Your task to perform on an android device: Show the shopping cart on ebay.com. Add "razer thresher" to the cart on ebay.com Image 0: 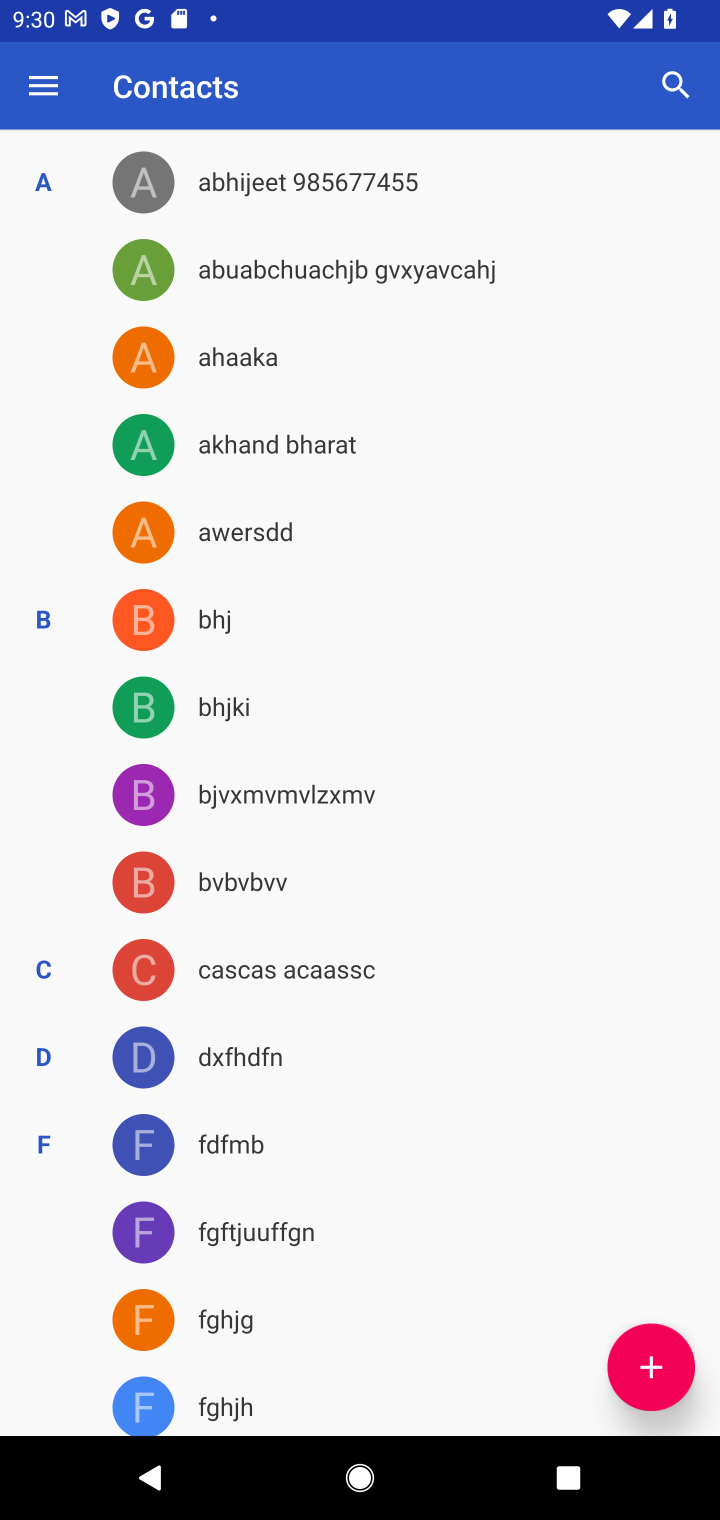
Step 0: press home button
Your task to perform on an android device: Show the shopping cart on ebay.com. Add "razer thresher" to the cart on ebay.com Image 1: 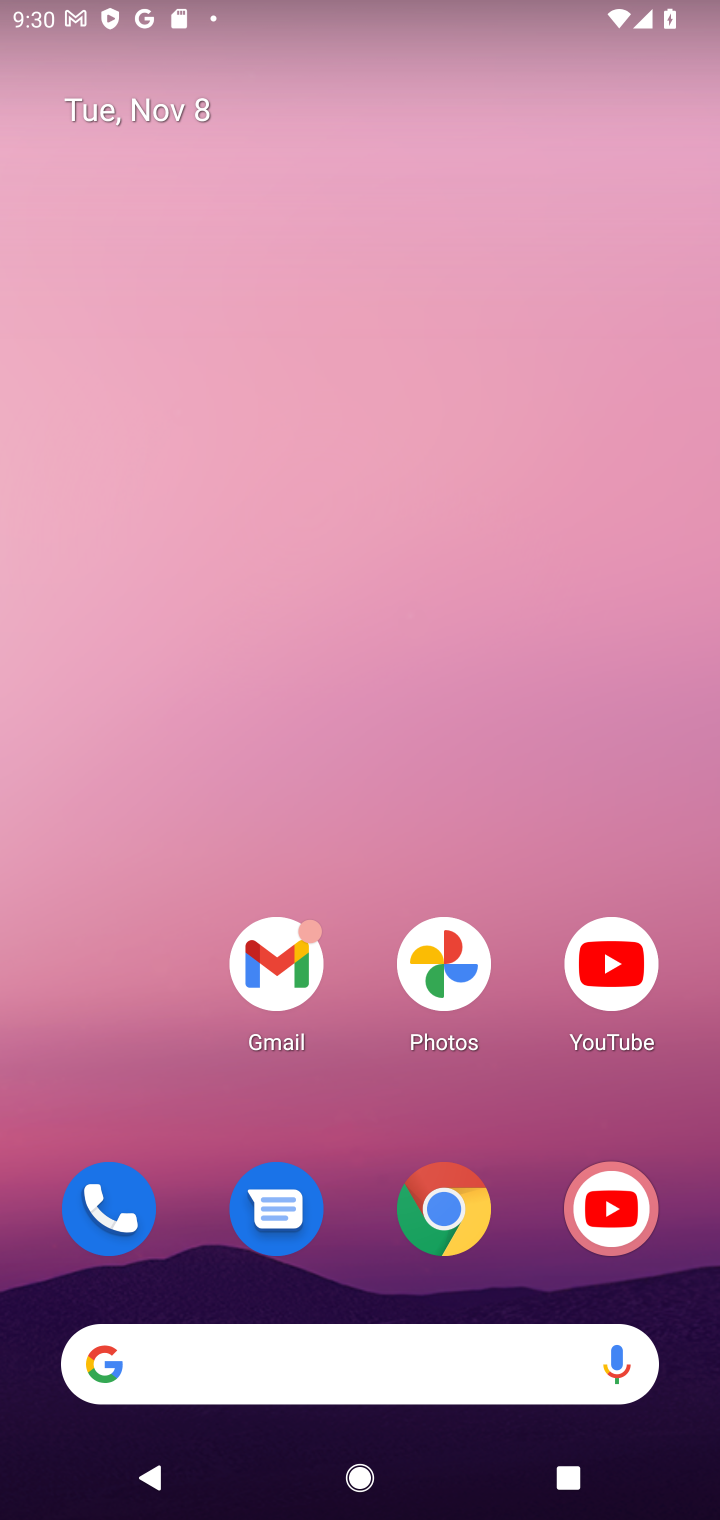
Step 1: click (446, 1199)
Your task to perform on an android device: Show the shopping cart on ebay.com. Add "razer thresher" to the cart on ebay.com Image 2: 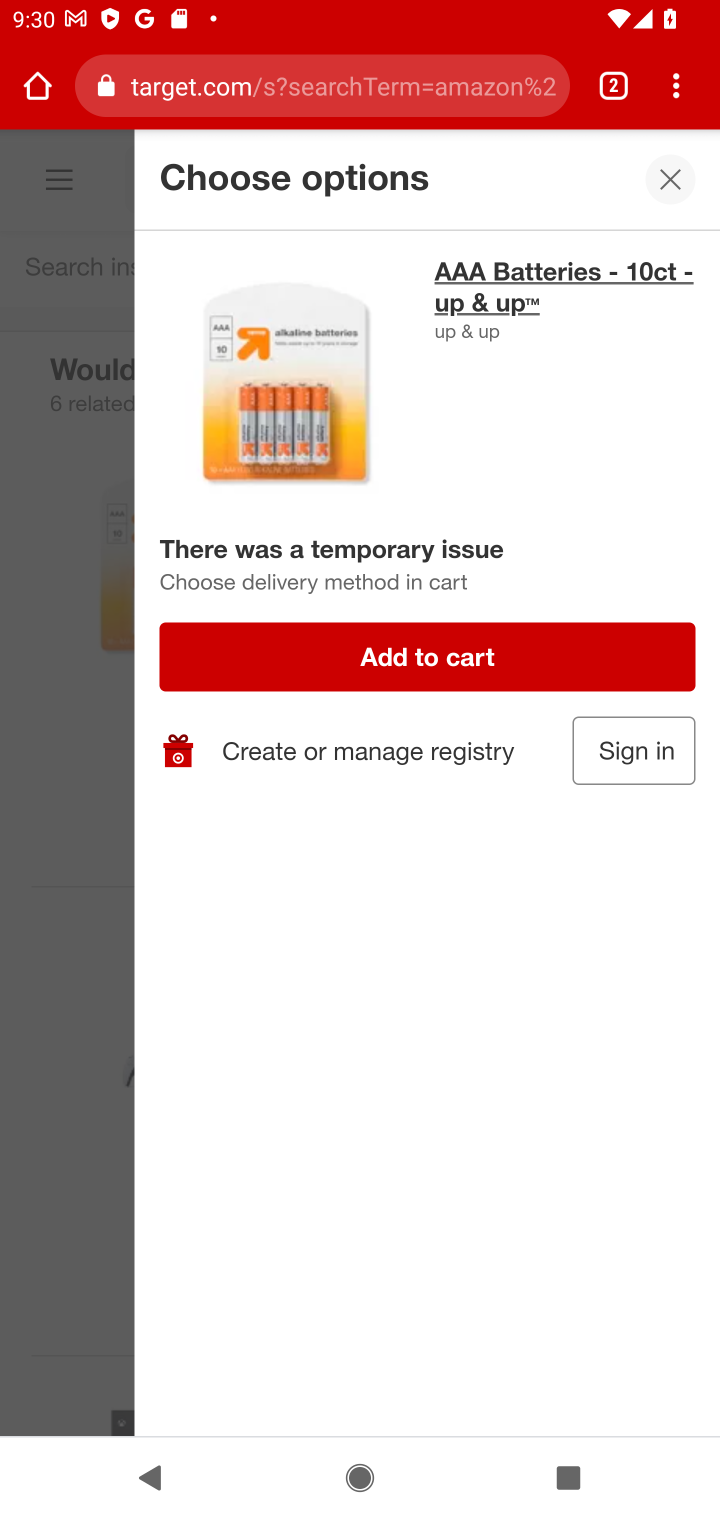
Step 2: click (614, 82)
Your task to perform on an android device: Show the shopping cart on ebay.com. Add "razer thresher" to the cart on ebay.com Image 3: 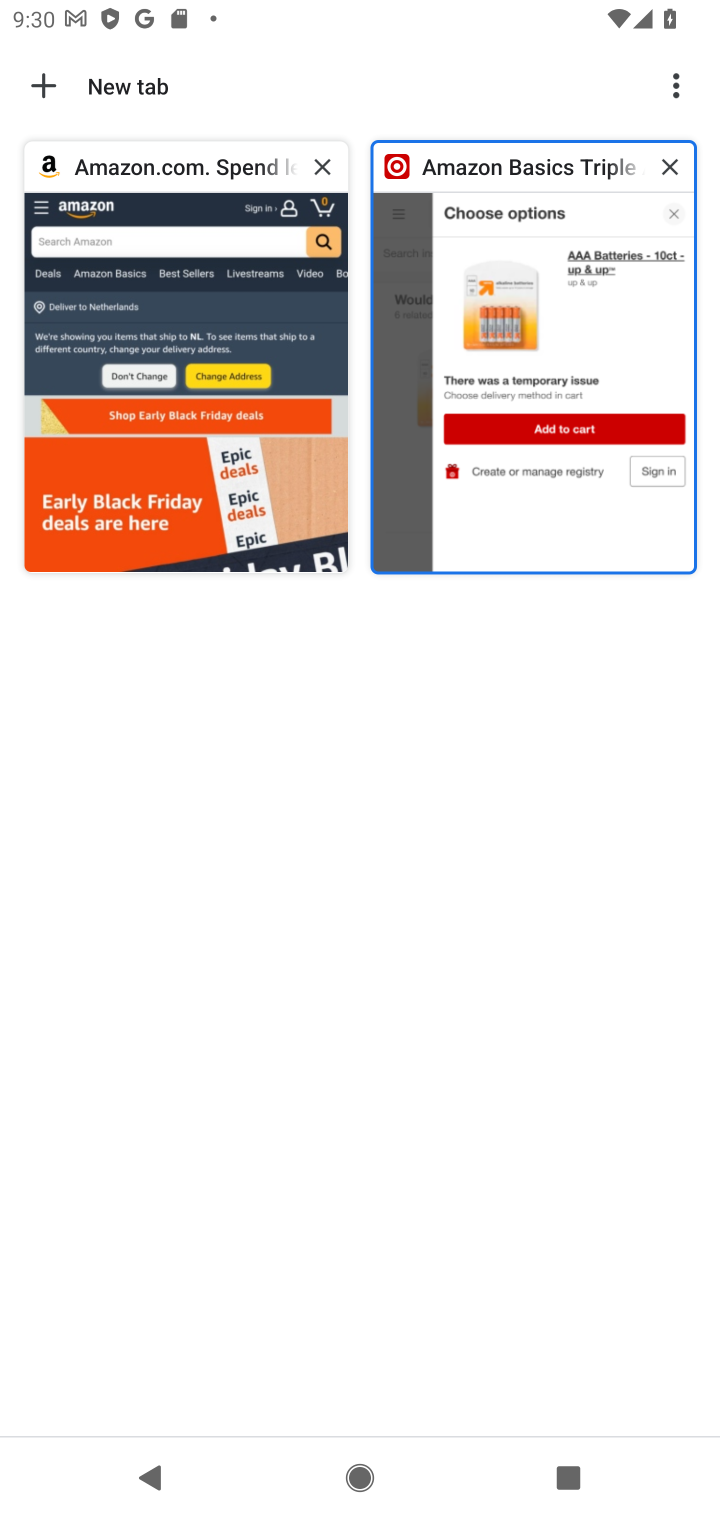
Step 3: click (45, 75)
Your task to perform on an android device: Show the shopping cart on ebay.com. Add "razer thresher" to the cart on ebay.com Image 4: 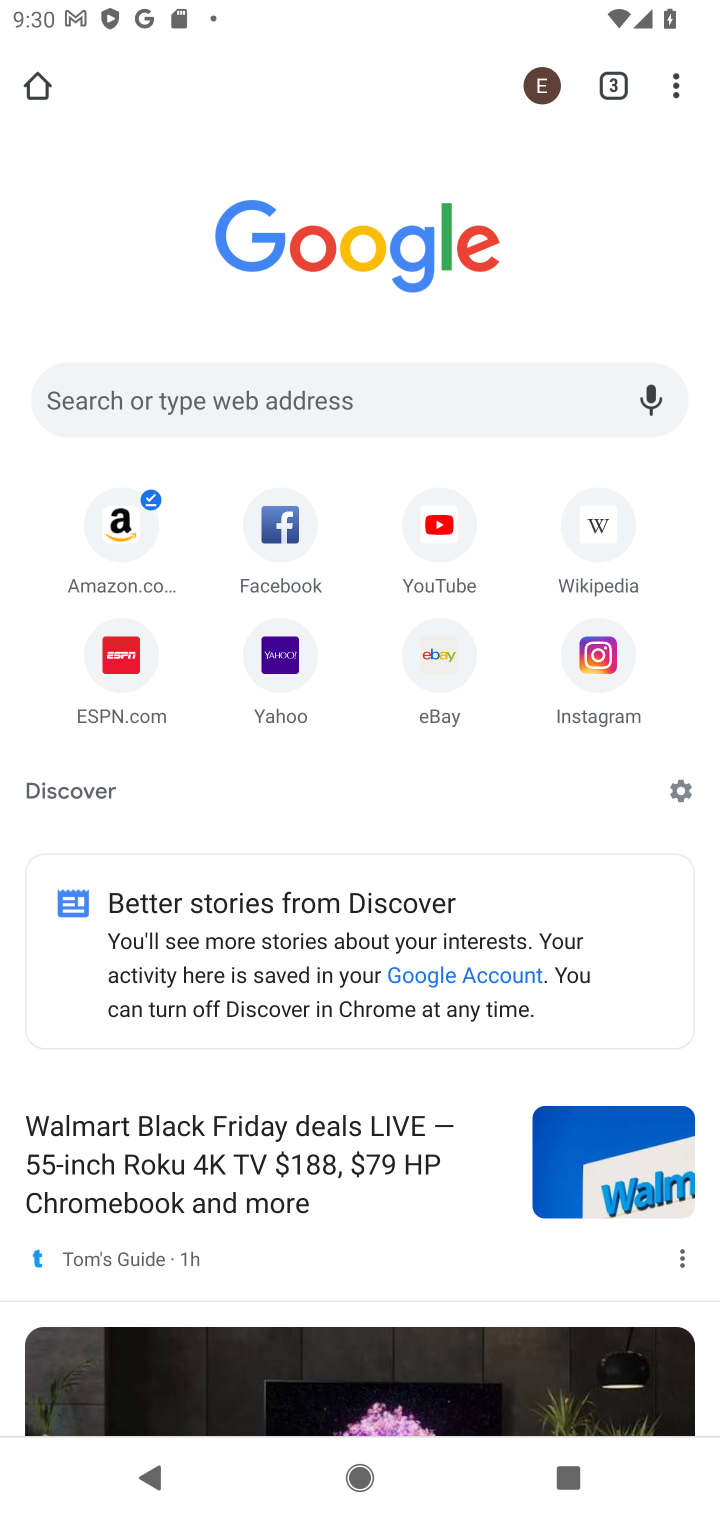
Step 4: click (435, 662)
Your task to perform on an android device: Show the shopping cart on ebay.com. Add "razer thresher" to the cart on ebay.com Image 5: 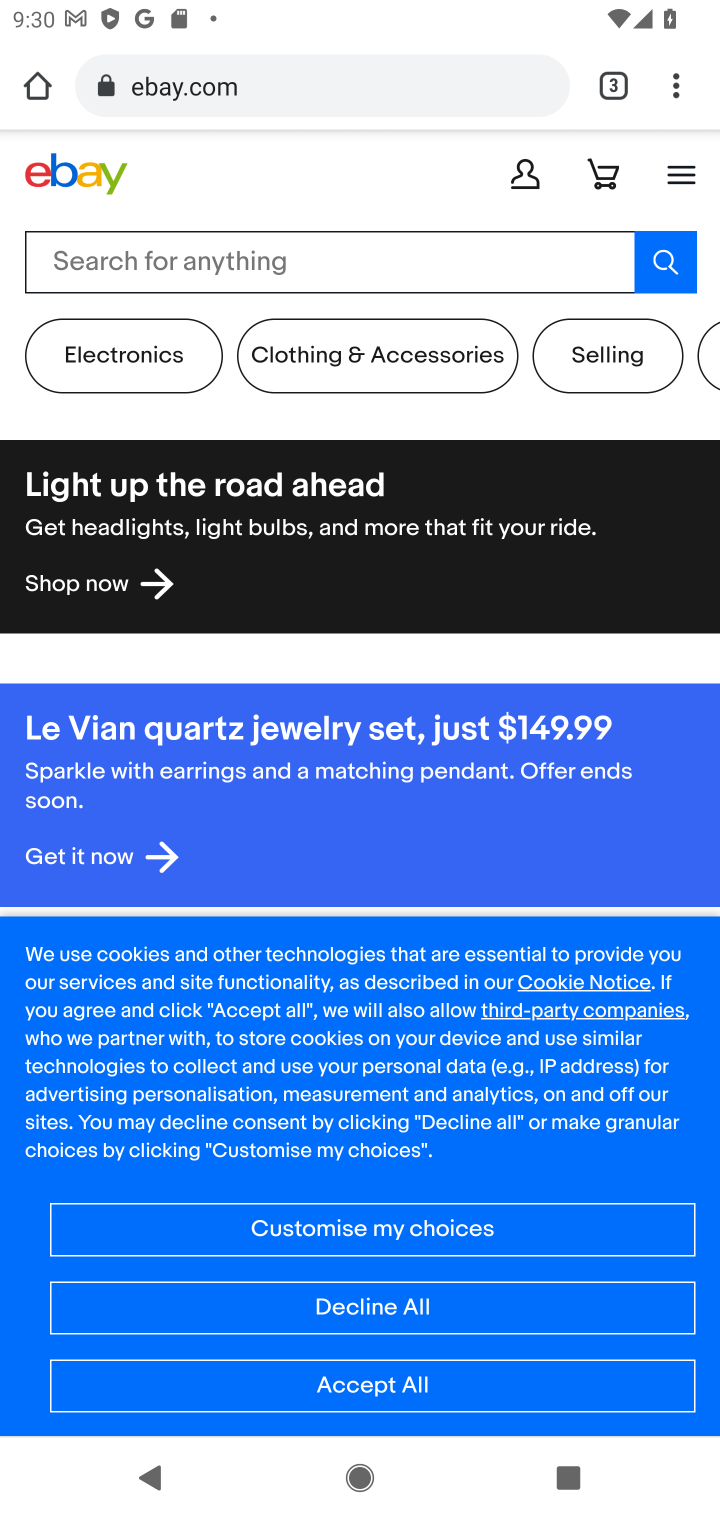
Step 5: click (264, 240)
Your task to perform on an android device: Show the shopping cart on ebay.com. Add "razer thresher" to the cart on ebay.com Image 6: 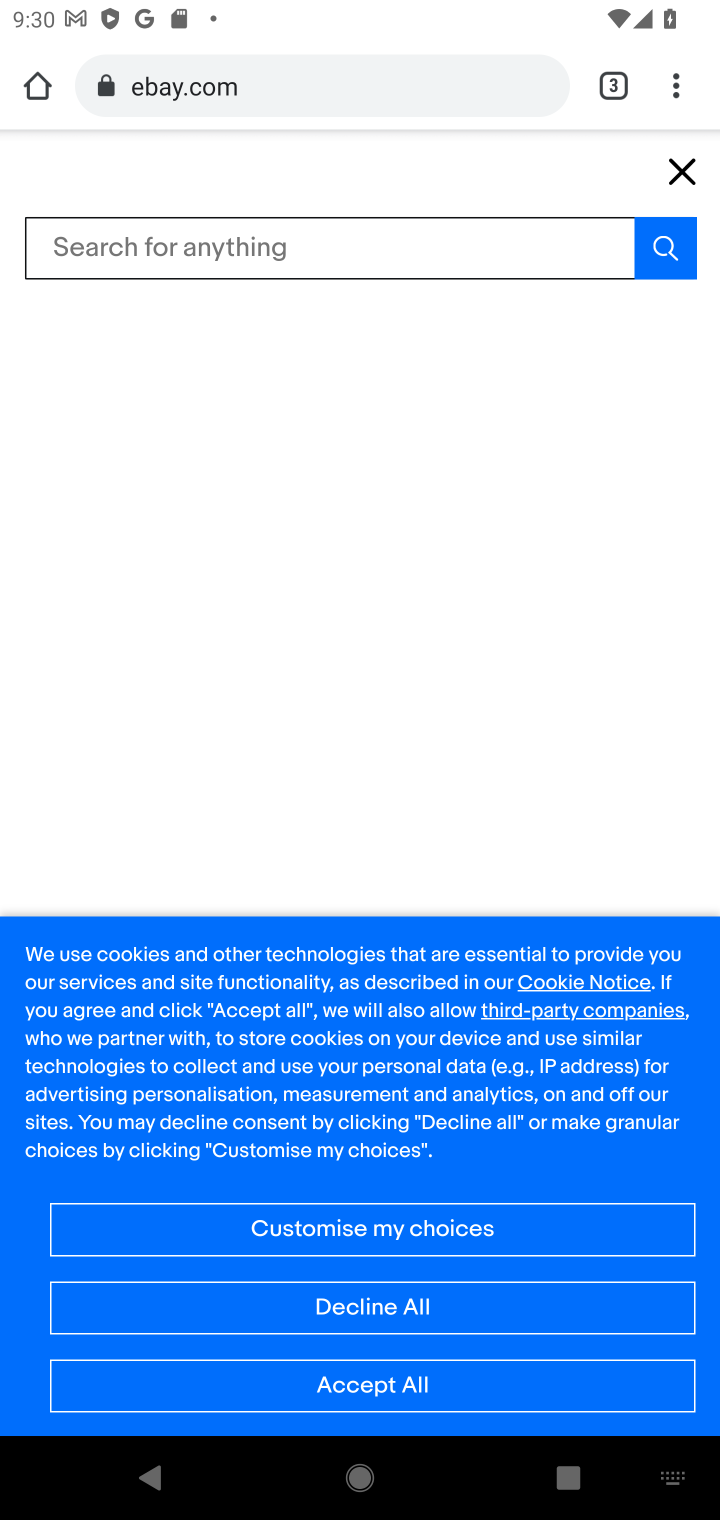
Step 6: type "razer thresher"
Your task to perform on an android device: Show the shopping cart on ebay.com. Add "razer thresher" to the cart on ebay.com Image 7: 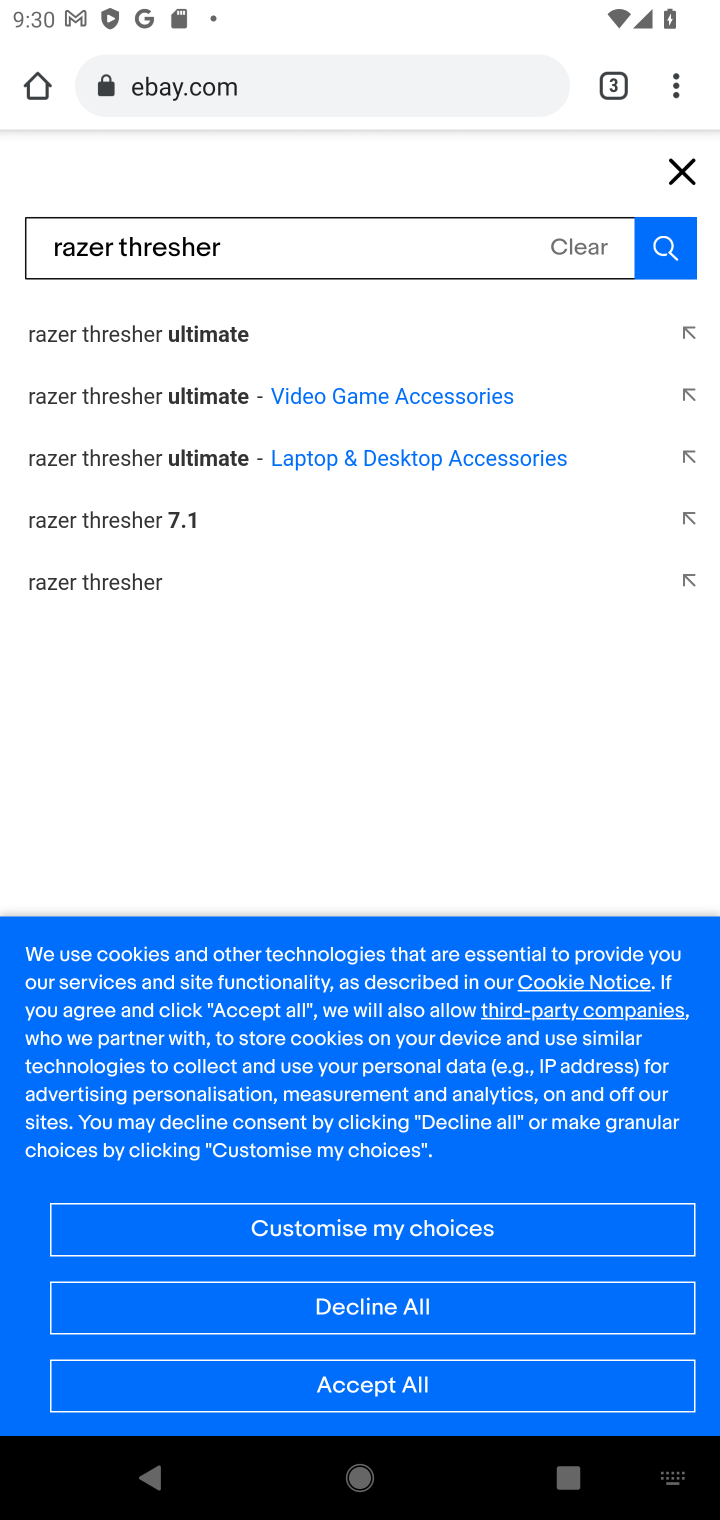
Step 7: click (402, 1308)
Your task to perform on an android device: Show the shopping cart on ebay.com. Add "razer thresher" to the cart on ebay.com Image 8: 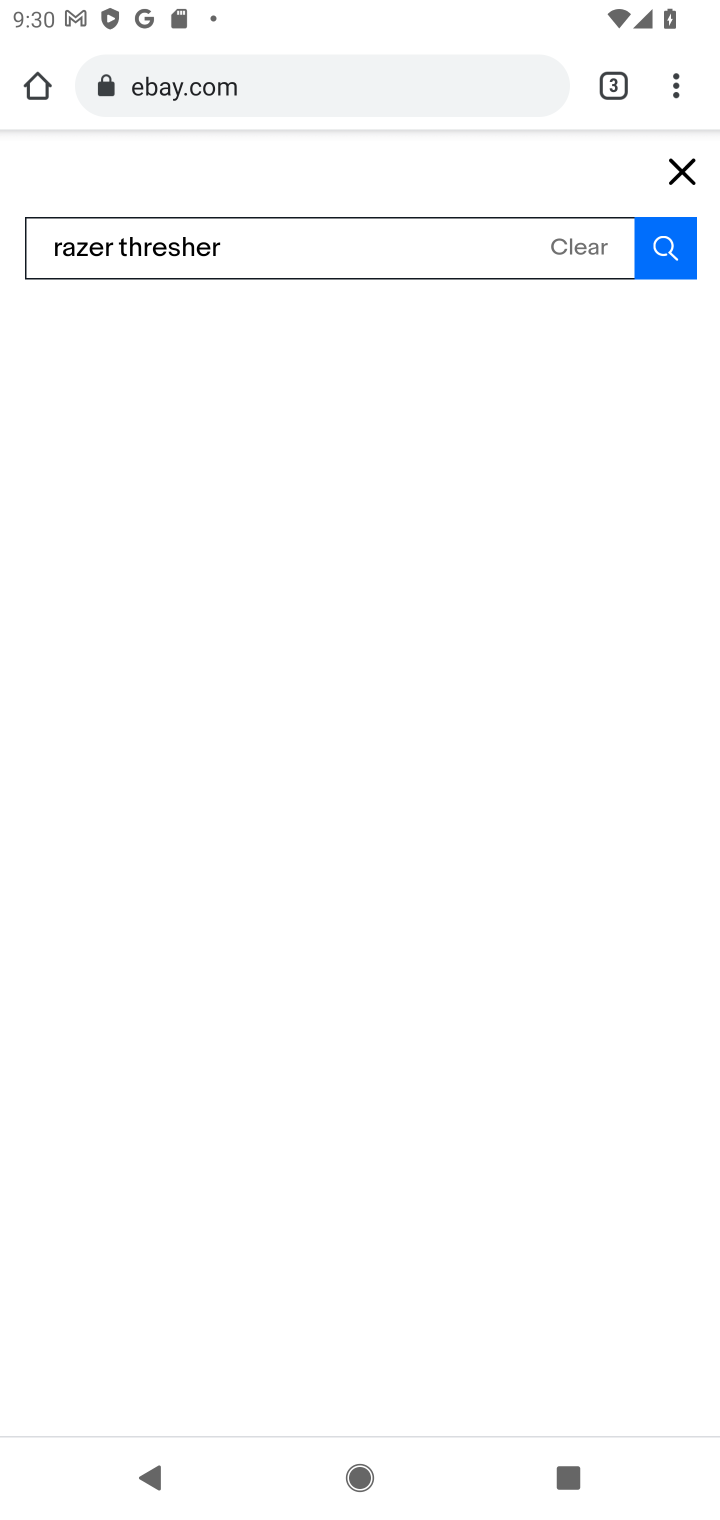
Step 8: click (682, 245)
Your task to perform on an android device: Show the shopping cart on ebay.com. Add "razer thresher" to the cart on ebay.com Image 9: 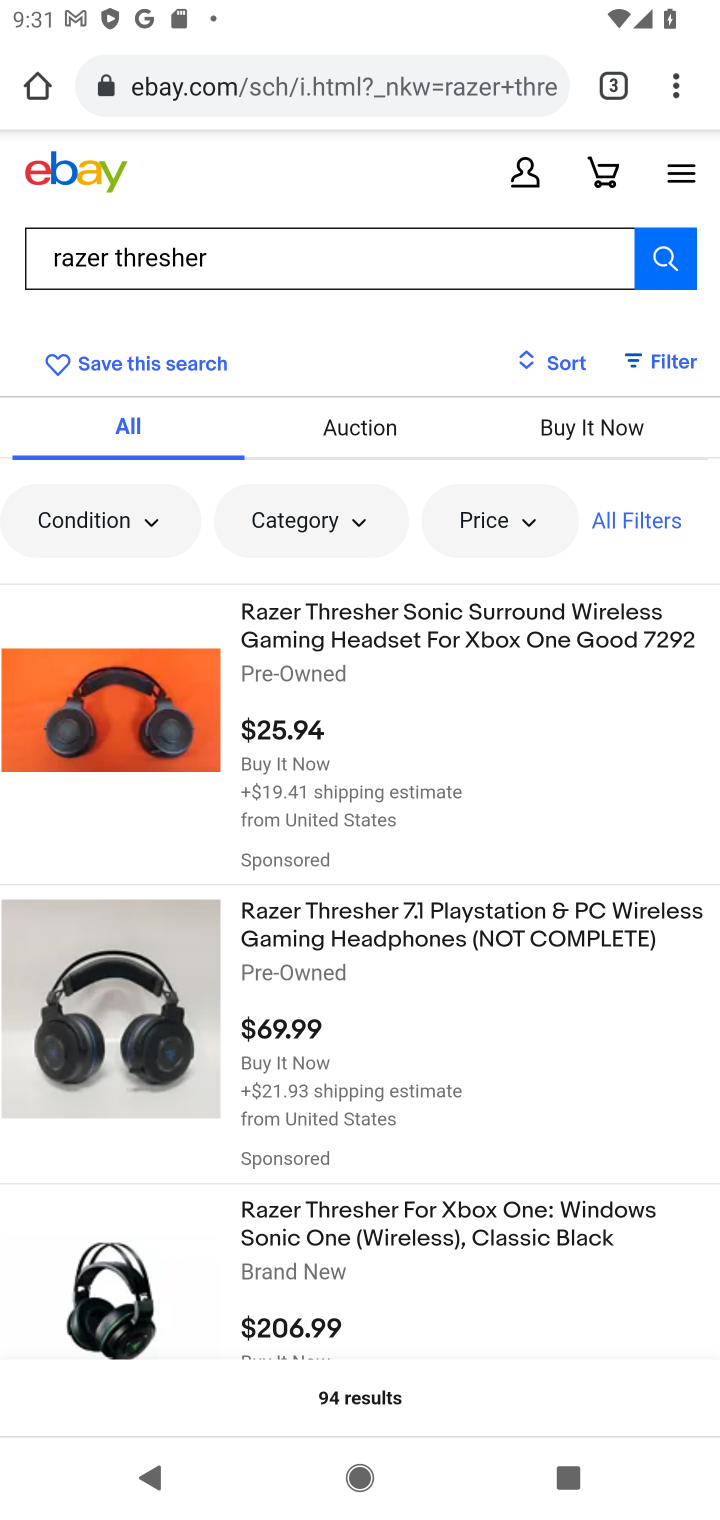
Step 9: click (471, 641)
Your task to perform on an android device: Show the shopping cart on ebay.com. Add "razer thresher" to the cart on ebay.com Image 10: 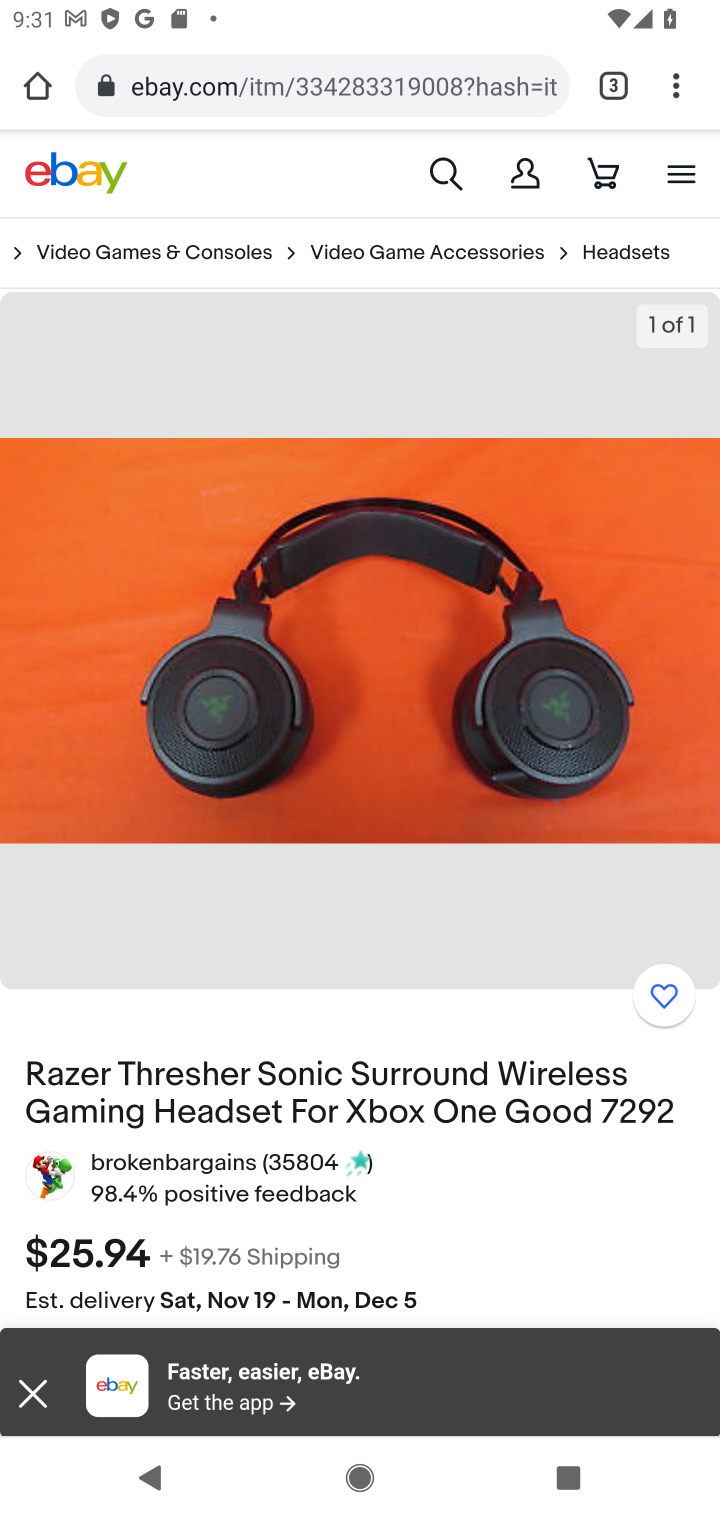
Step 10: drag from (386, 1262) to (457, 628)
Your task to perform on an android device: Show the shopping cart on ebay.com. Add "razer thresher" to the cart on ebay.com Image 11: 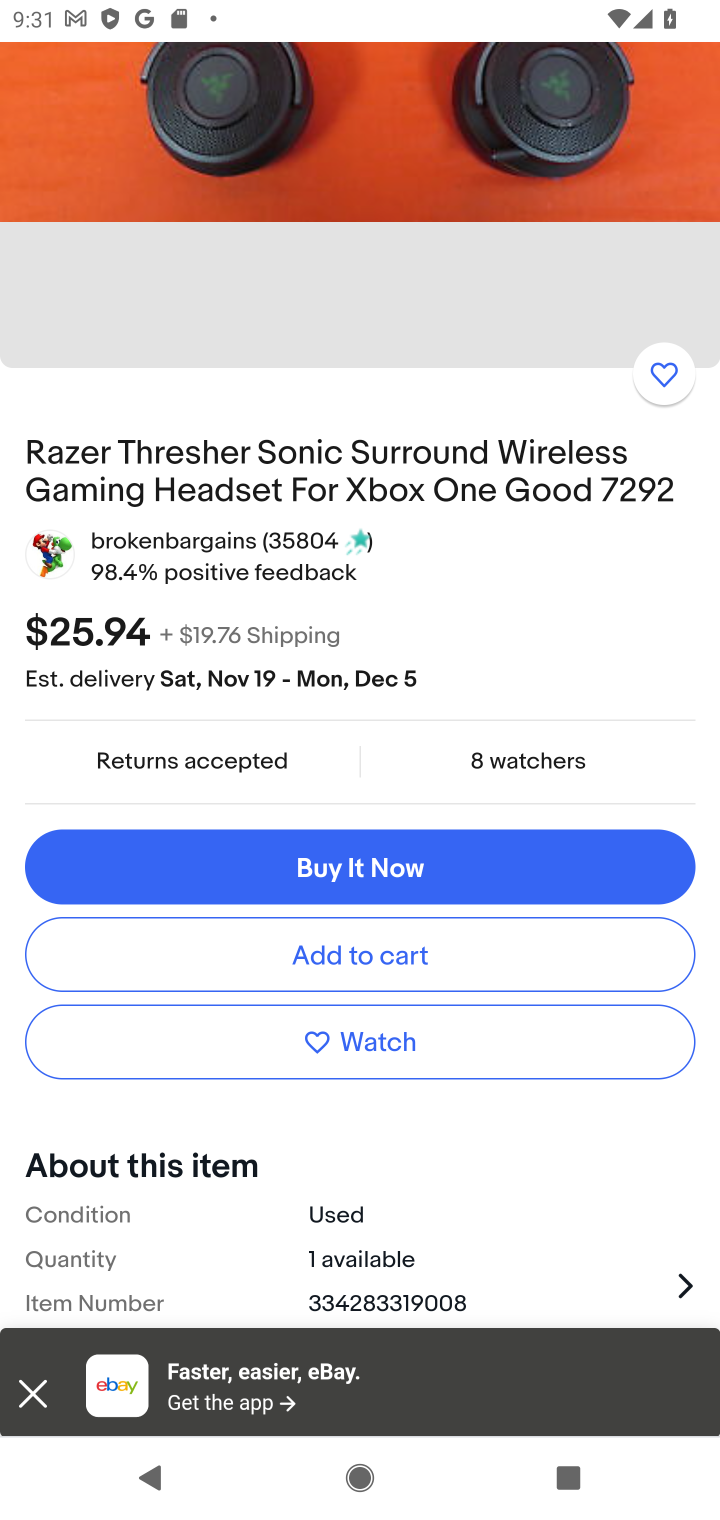
Step 11: click (356, 935)
Your task to perform on an android device: Show the shopping cart on ebay.com. Add "razer thresher" to the cart on ebay.com Image 12: 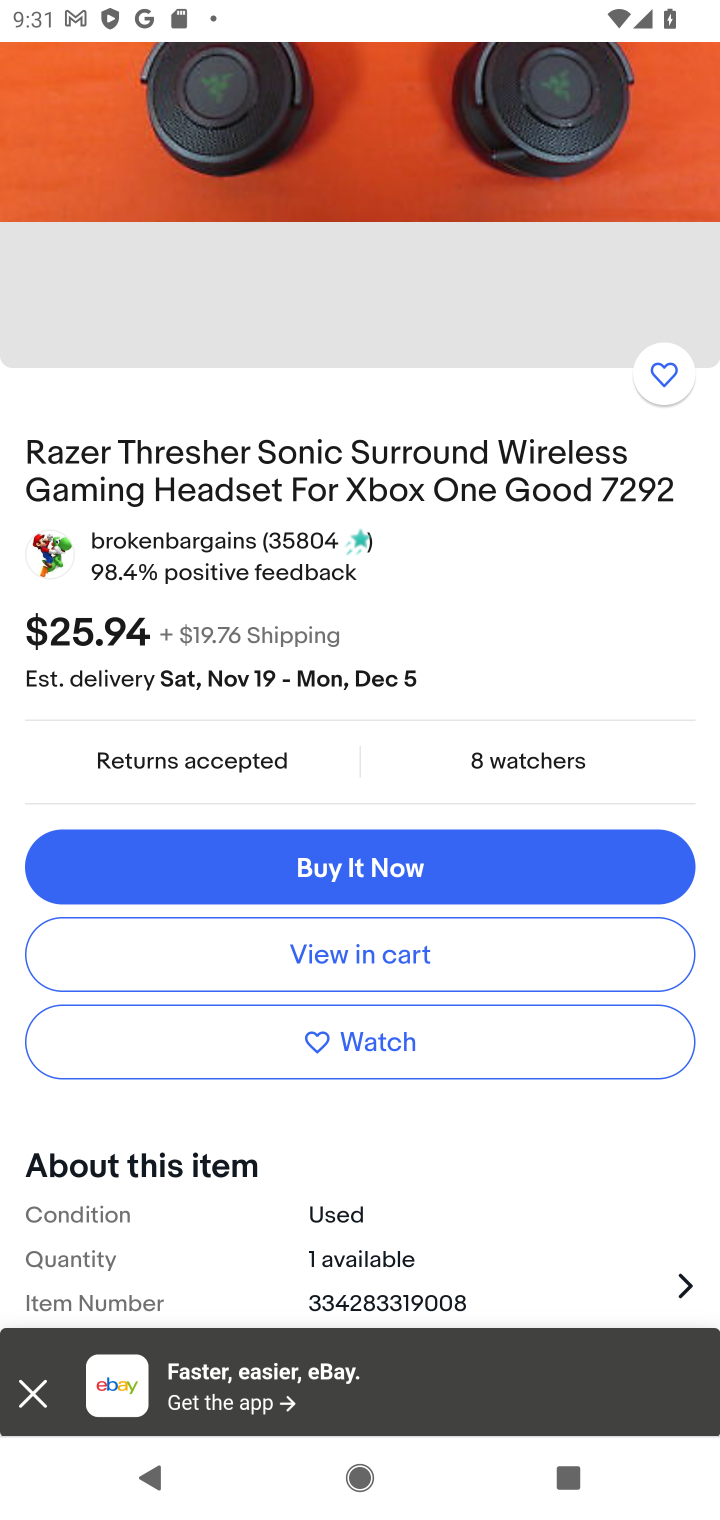
Step 12: task complete